Your task to perform on an android device: search for starred emails in the gmail app Image 0: 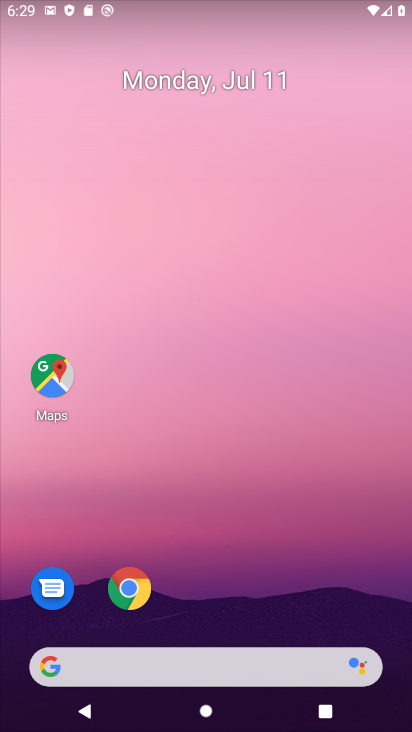
Step 0: drag from (373, 604) to (193, 0)
Your task to perform on an android device: search for starred emails in the gmail app Image 1: 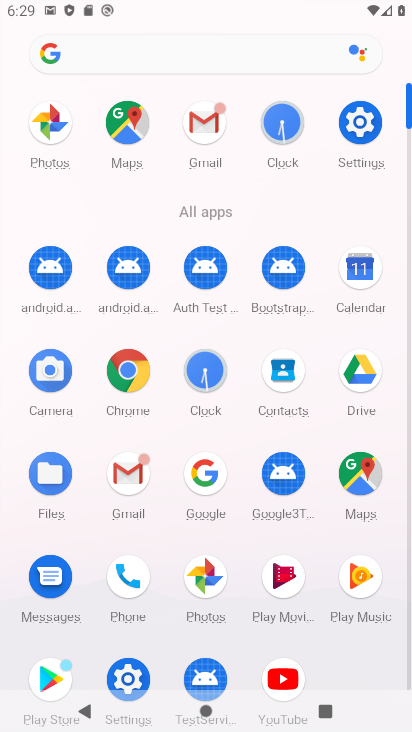
Step 1: click (128, 482)
Your task to perform on an android device: search for starred emails in the gmail app Image 2: 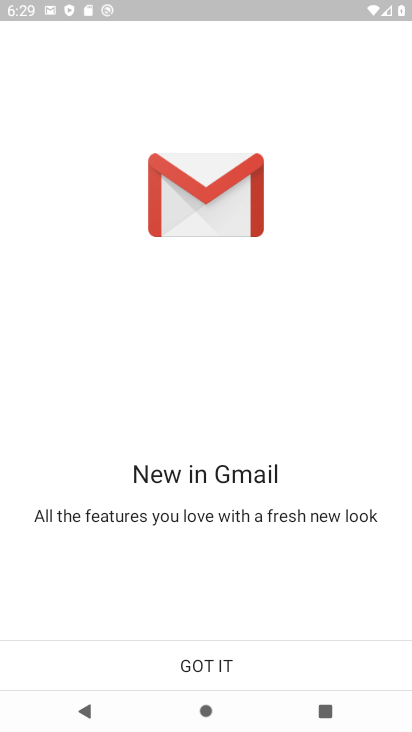
Step 2: click (191, 663)
Your task to perform on an android device: search for starred emails in the gmail app Image 3: 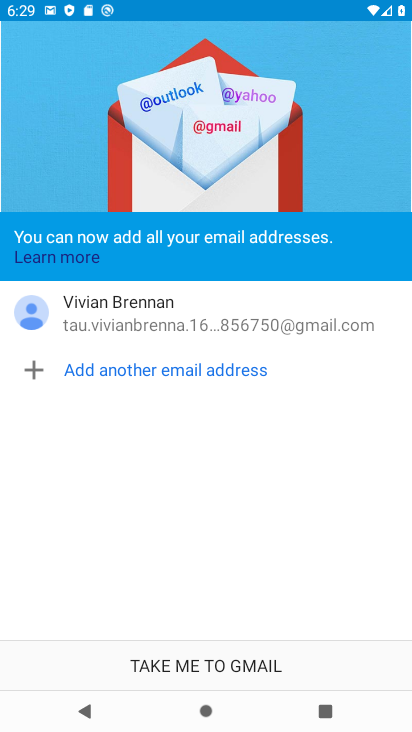
Step 3: click (191, 663)
Your task to perform on an android device: search for starred emails in the gmail app Image 4: 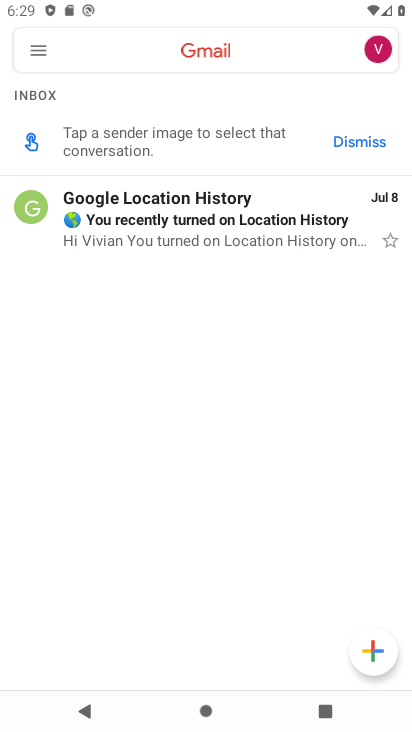
Step 4: click (32, 56)
Your task to perform on an android device: search for starred emails in the gmail app Image 5: 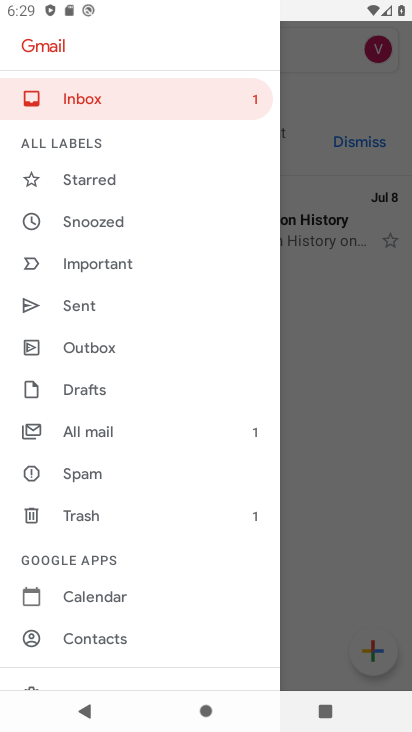
Step 5: click (75, 188)
Your task to perform on an android device: search for starred emails in the gmail app Image 6: 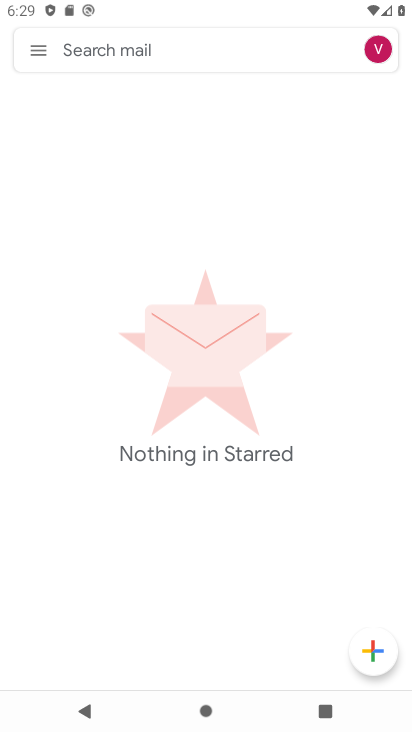
Step 6: task complete